Your task to perform on an android device: turn off translation in the chrome app Image 0: 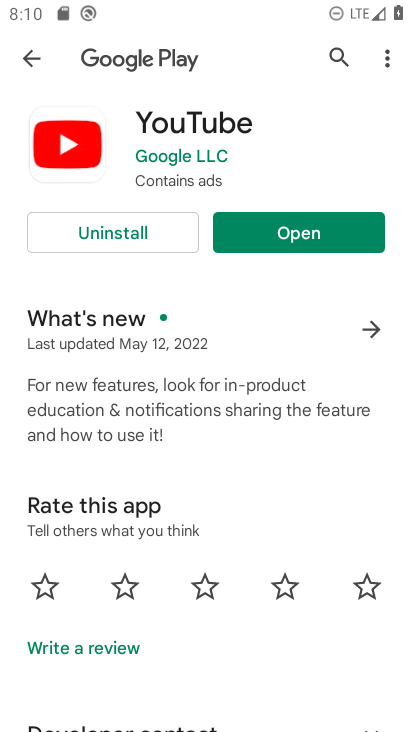
Step 0: press home button
Your task to perform on an android device: turn off translation in the chrome app Image 1: 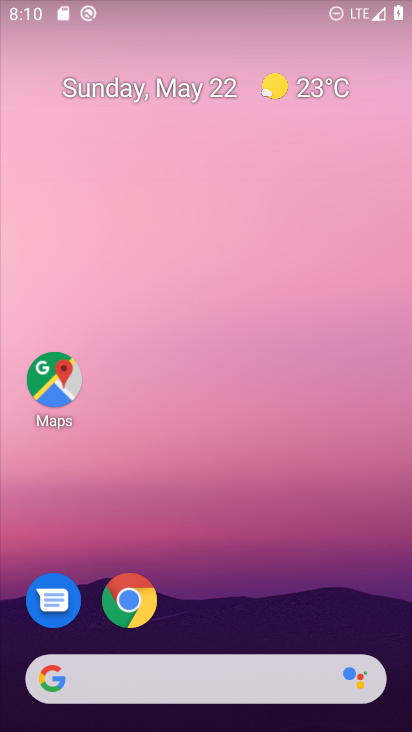
Step 1: drag from (353, 601) to (247, 28)
Your task to perform on an android device: turn off translation in the chrome app Image 2: 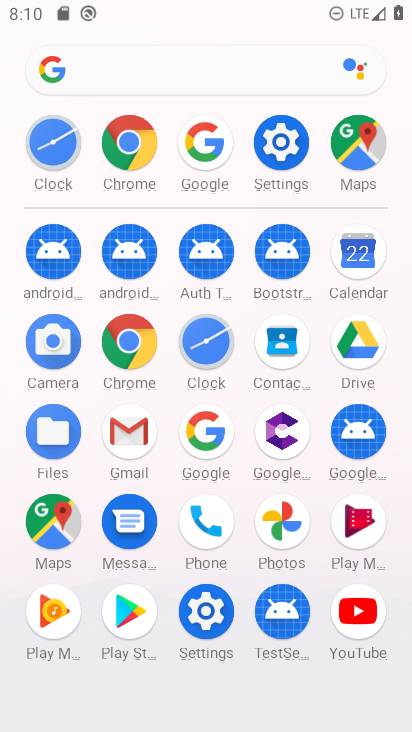
Step 2: click (124, 154)
Your task to perform on an android device: turn off translation in the chrome app Image 3: 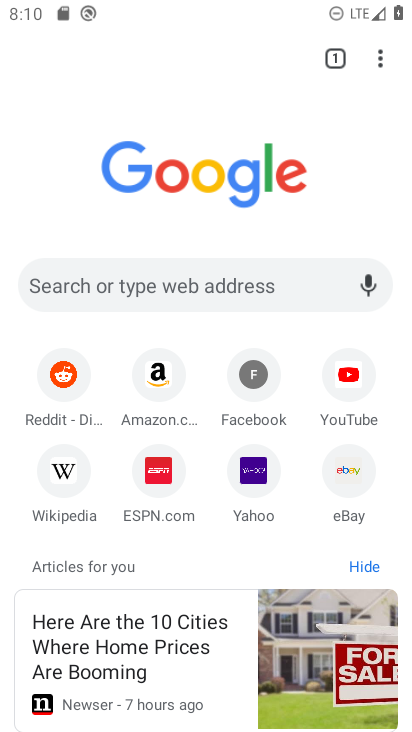
Step 3: click (386, 54)
Your task to perform on an android device: turn off translation in the chrome app Image 4: 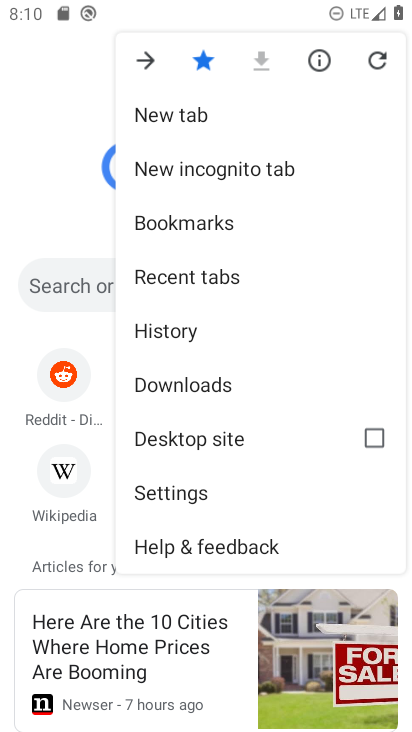
Step 4: click (231, 486)
Your task to perform on an android device: turn off translation in the chrome app Image 5: 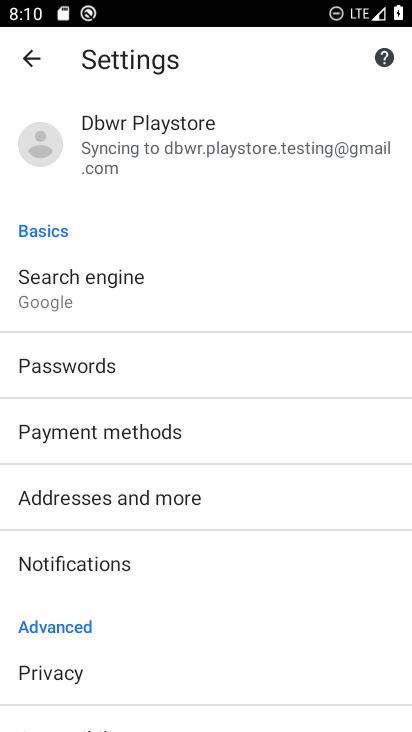
Step 5: drag from (82, 691) to (176, 298)
Your task to perform on an android device: turn off translation in the chrome app Image 6: 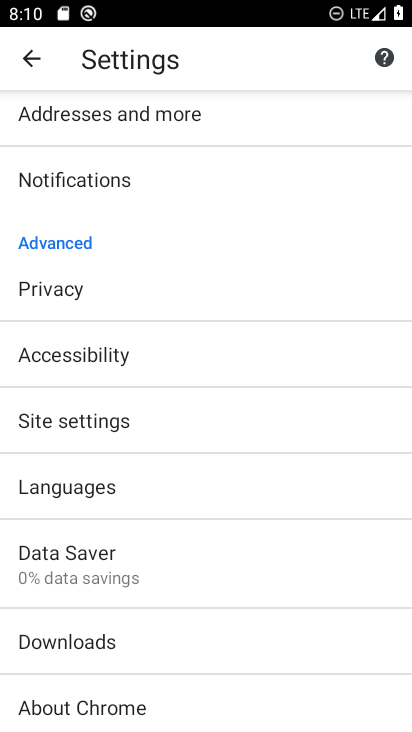
Step 6: click (107, 491)
Your task to perform on an android device: turn off translation in the chrome app Image 7: 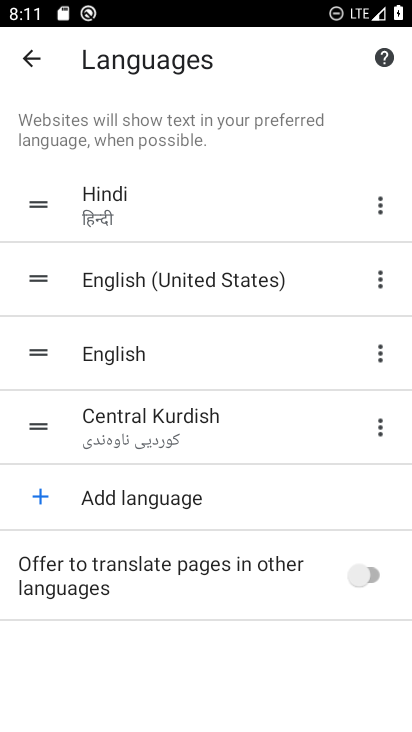
Step 7: task complete